Your task to perform on an android device: turn off smart reply in the gmail app Image 0: 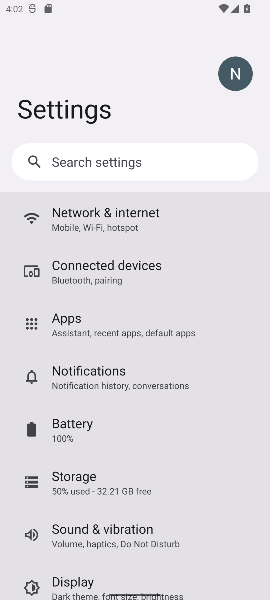
Step 0: press home button
Your task to perform on an android device: turn off smart reply in the gmail app Image 1: 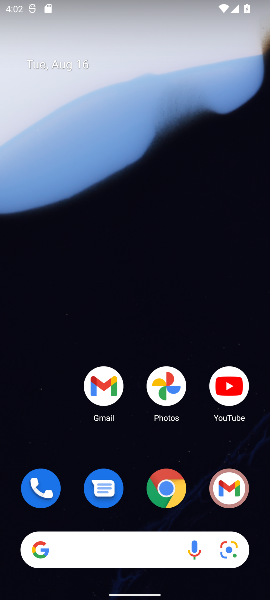
Step 1: drag from (57, 411) to (44, 117)
Your task to perform on an android device: turn off smart reply in the gmail app Image 2: 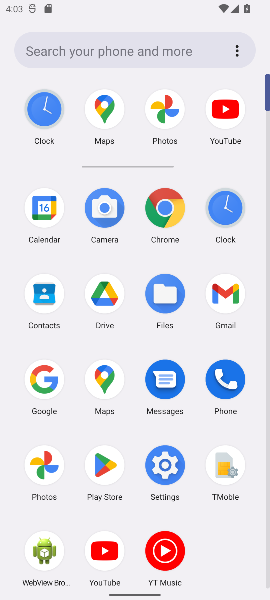
Step 2: click (229, 298)
Your task to perform on an android device: turn off smart reply in the gmail app Image 3: 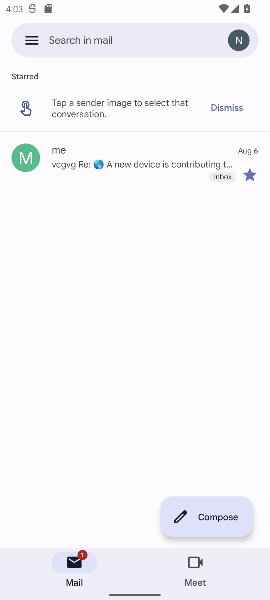
Step 3: task complete